Your task to perform on an android device: turn on improve location accuracy Image 0: 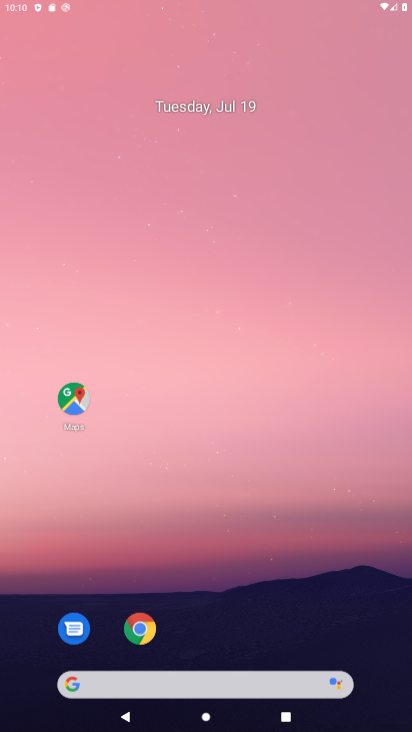
Step 0: click (244, 30)
Your task to perform on an android device: turn on improve location accuracy Image 1: 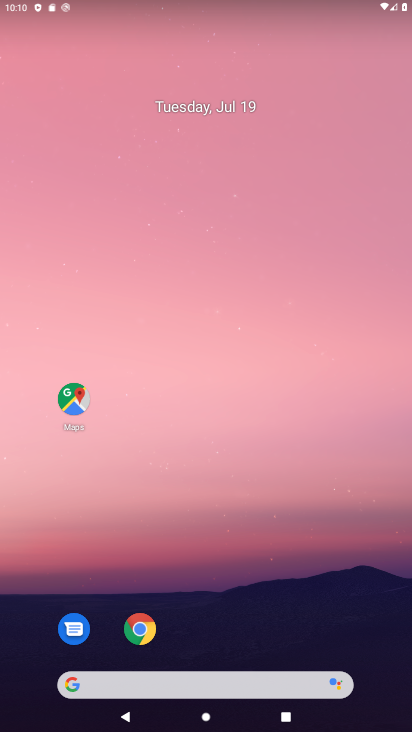
Step 1: drag from (273, 491) to (228, 10)
Your task to perform on an android device: turn on improve location accuracy Image 2: 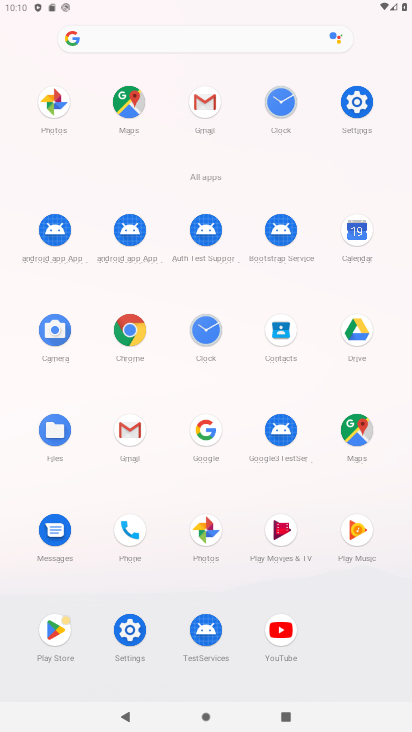
Step 2: click (128, 634)
Your task to perform on an android device: turn on improve location accuracy Image 3: 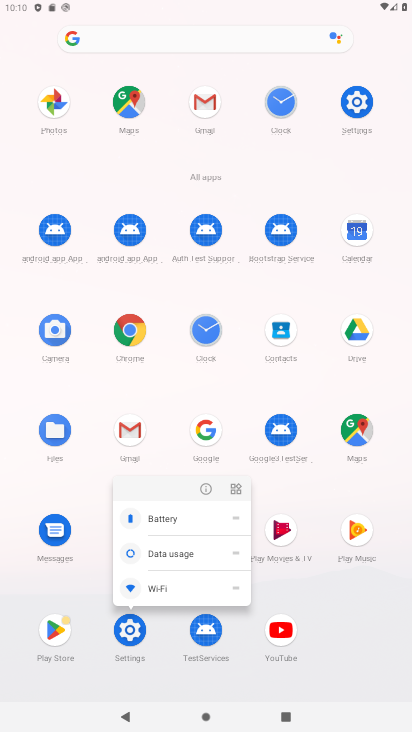
Step 3: click (209, 488)
Your task to perform on an android device: turn on improve location accuracy Image 4: 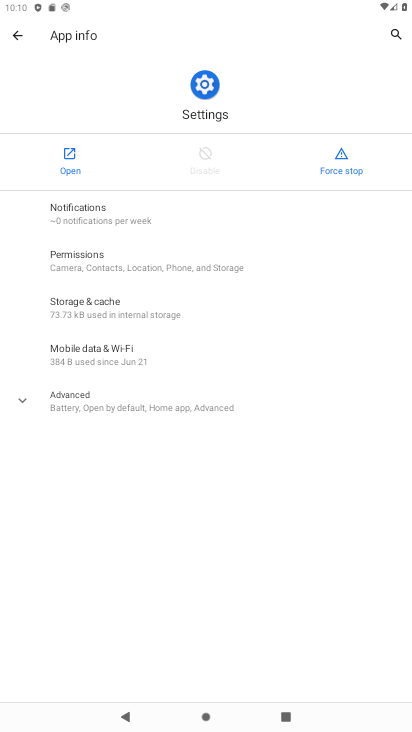
Step 4: click (70, 178)
Your task to perform on an android device: turn on improve location accuracy Image 5: 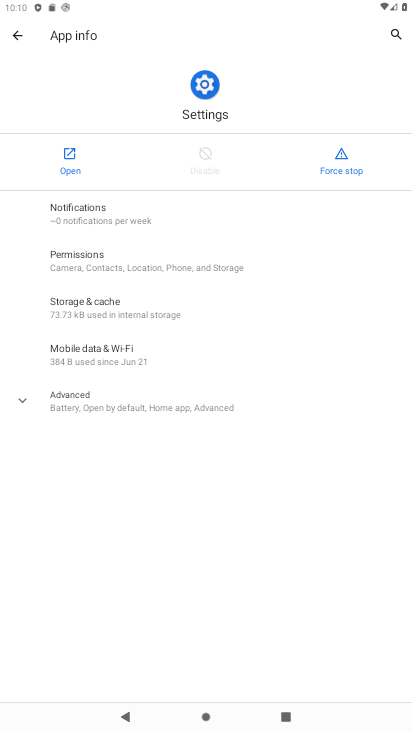
Step 5: click (76, 162)
Your task to perform on an android device: turn on improve location accuracy Image 6: 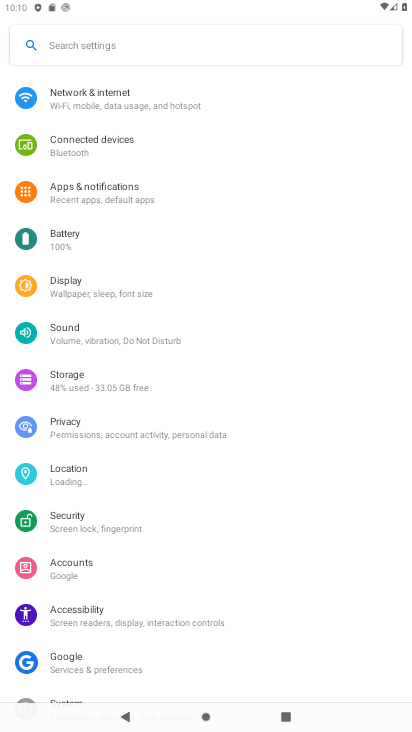
Step 6: drag from (199, 606) to (104, 261)
Your task to perform on an android device: turn on improve location accuracy Image 7: 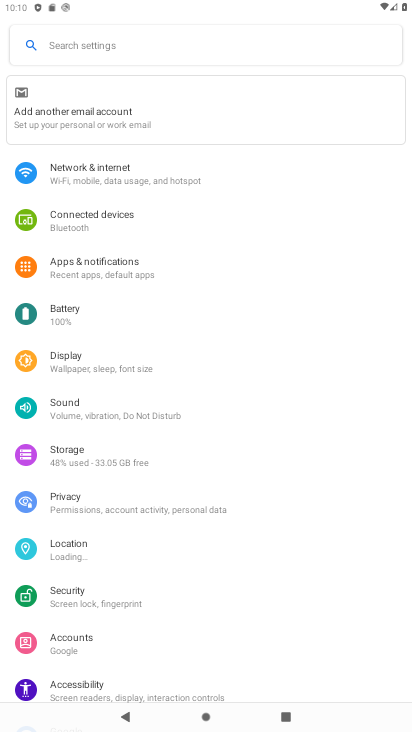
Step 7: drag from (219, 583) to (169, 318)
Your task to perform on an android device: turn on improve location accuracy Image 8: 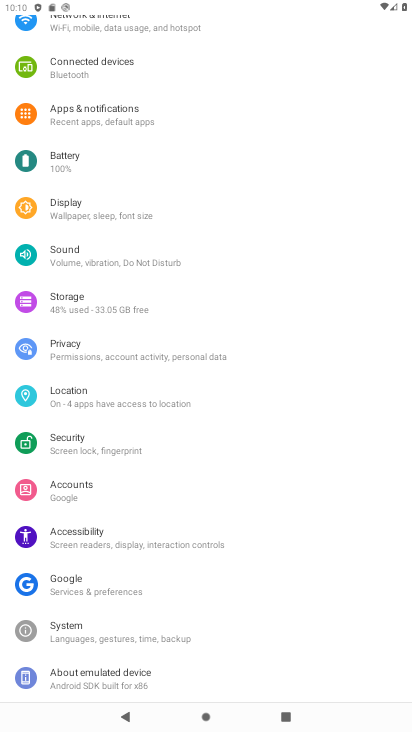
Step 8: click (113, 391)
Your task to perform on an android device: turn on improve location accuracy Image 9: 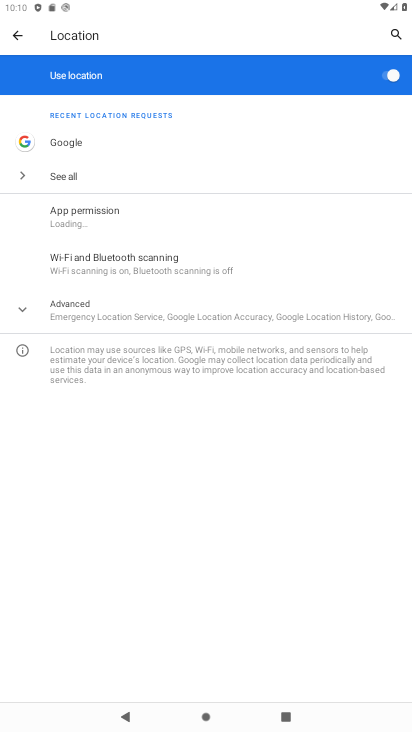
Step 9: drag from (238, 626) to (205, 365)
Your task to perform on an android device: turn on improve location accuracy Image 10: 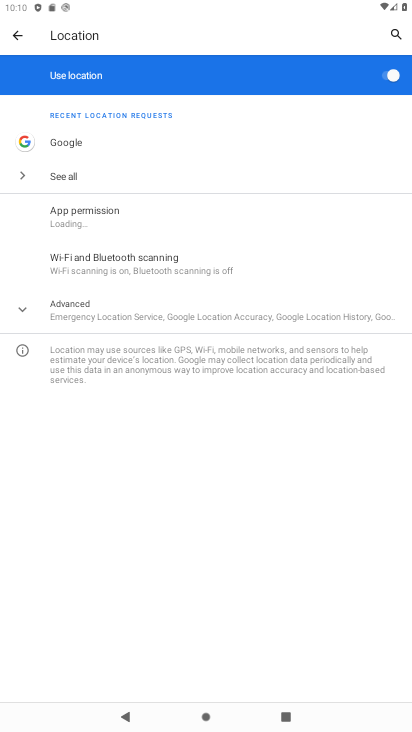
Step 10: click (202, 324)
Your task to perform on an android device: turn on improve location accuracy Image 11: 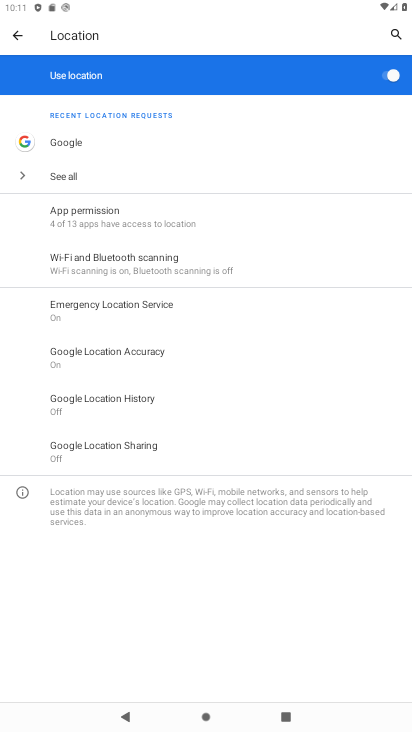
Step 11: click (258, 334)
Your task to perform on an android device: turn on improve location accuracy Image 12: 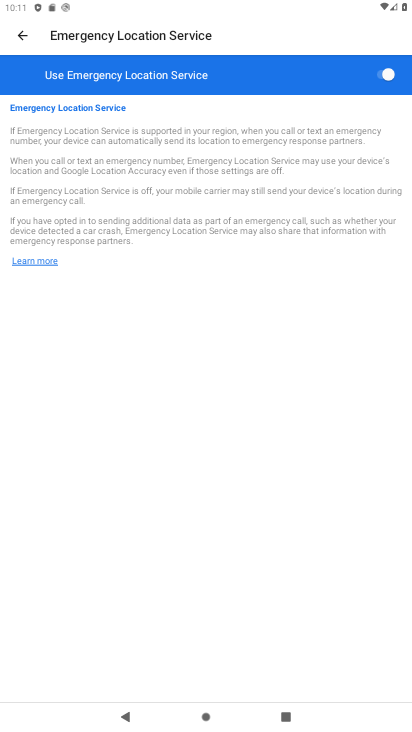
Step 12: click (26, 33)
Your task to perform on an android device: turn on improve location accuracy Image 13: 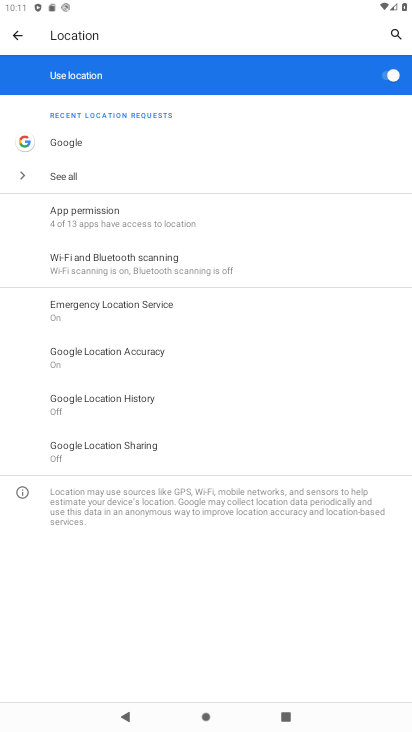
Step 13: click (153, 344)
Your task to perform on an android device: turn on improve location accuracy Image 14: 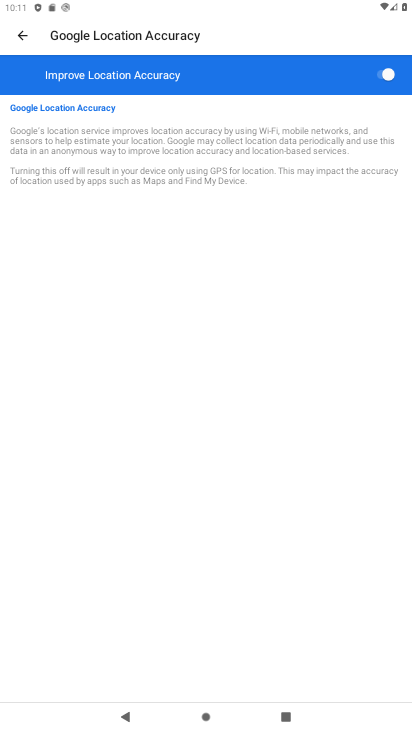
Step 14: task complete